Your task to perform on an android device: see tabs open on other devices in the chrome app Image 0: 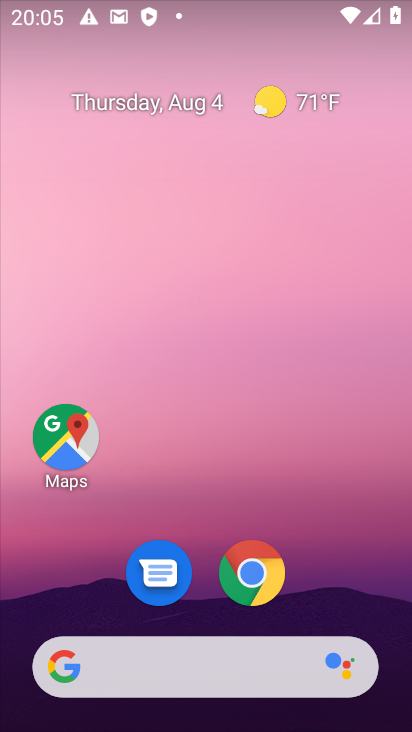
Step 0: drag from (206, 650) to (172, 94)
Your task to perform on an android device: see tabs open on other devices in the chrome app Image 1: 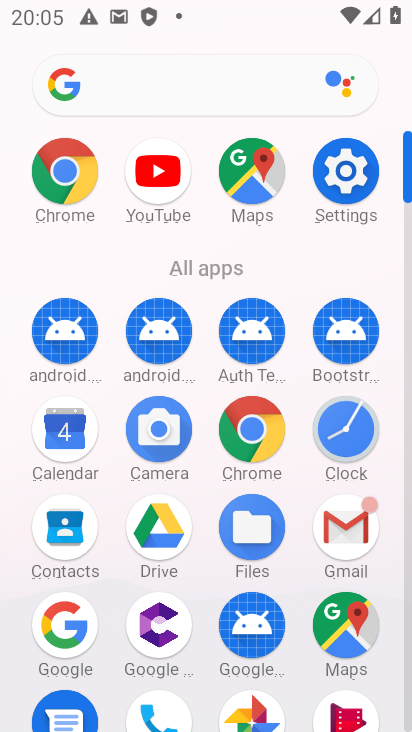
Step 1: click (95, 174)
Your task to perform on an android device: see tabs open on other devices in the chrome app Image 2: 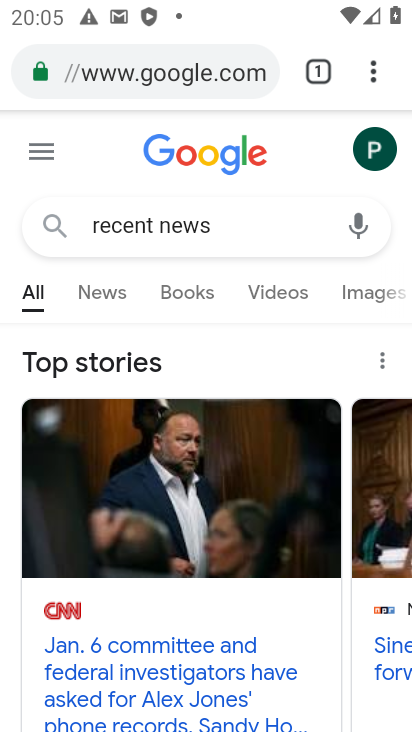
Step 2: task complete